Your task to perform on an android device: toggle javascript in the chrome app Image 0: 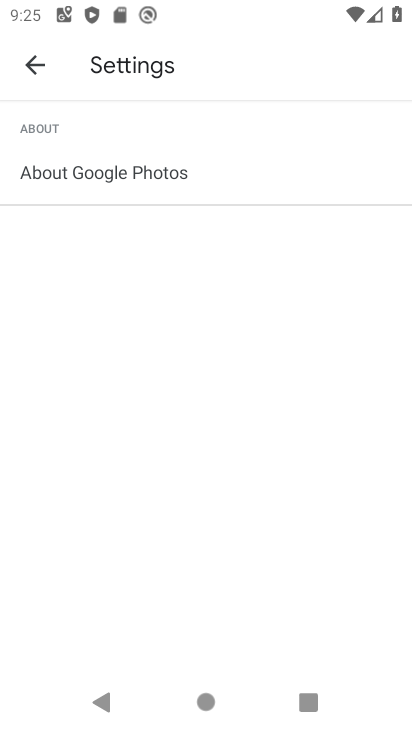
Step 0: press home button
Your task to perform on an android device: toggle javascript in the chrome app Image 1: 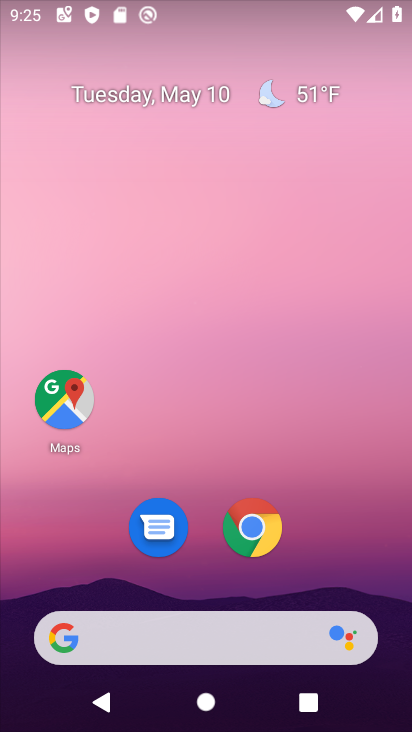
Step 1: click (252, 535)
Your task to perform on an android device: toggle javascript in the chrome app Image 2: 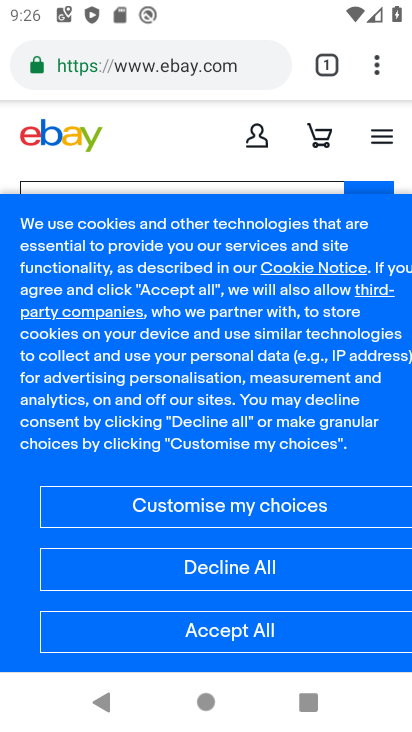
Step 2: click (377, 74)
Your task to perform on an android device: toggle javascript in the chrome app Image 3: 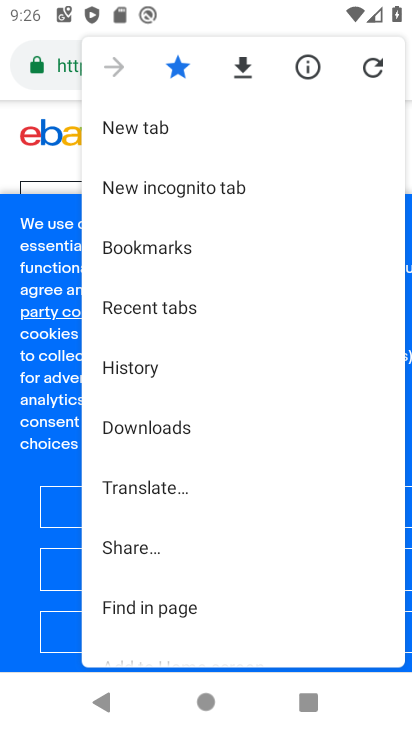
Step 3: drag from (200, 608) to (196, 282)
Your task to perform on an android device: toggle javascript in the chrome app Image 4: 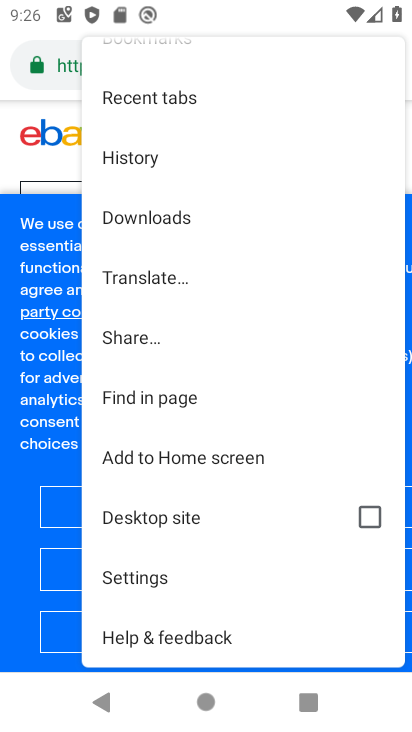
Step 4: click (131, 577)
Your task to perform on an android device: toggle javascript in the chrome app Image 5: 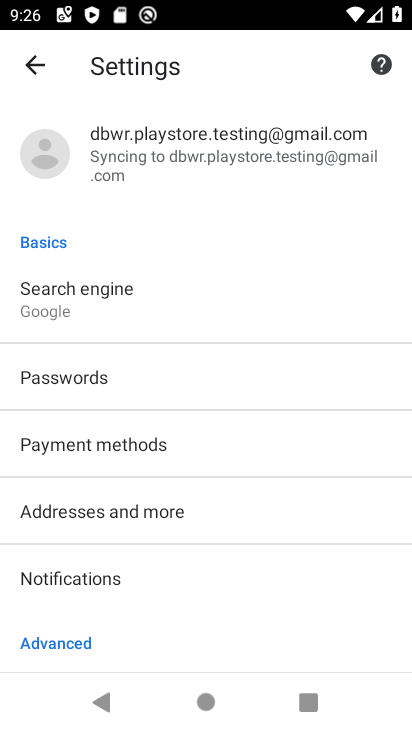
Step 5: drag from (173, 636) to (199, 256)
Your task to perform on an android device: toggle javascript in the chrome app Image 6: 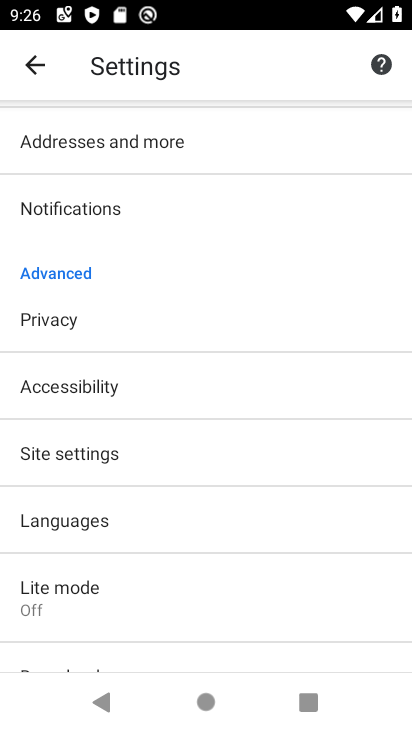
Step 6: click (88, 452)
Your task to perform on an android device: toggle javascript in the chrome app Image 7: 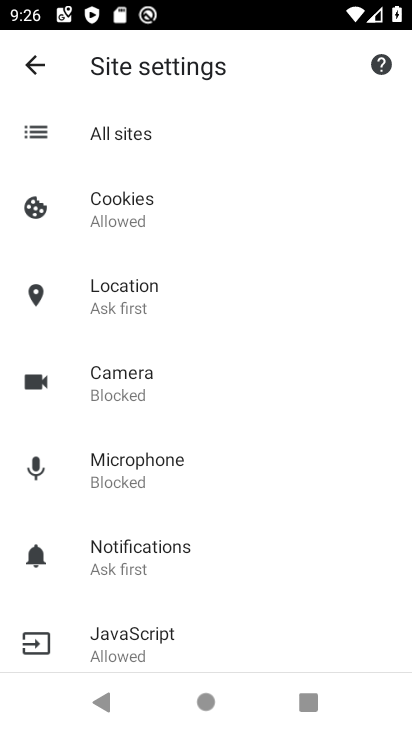
Step 7: click (125, 634)
Your task to perform on an android device: toggle javascript in the chrome app Image 8: 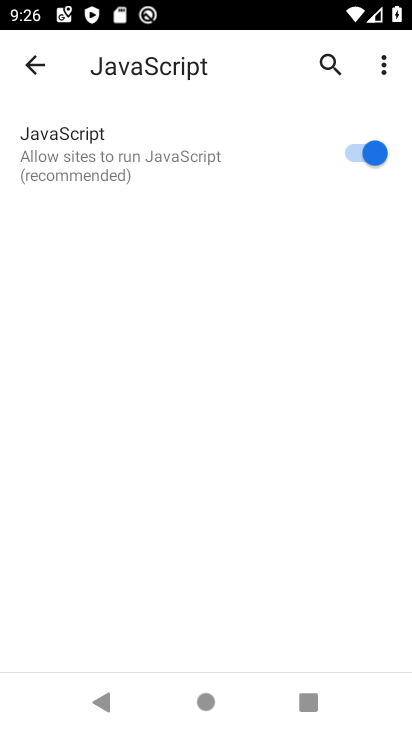
Step 8: click (359, 159)
Your task to perform on an android device: toggle javascript in the chrome app Image 9: 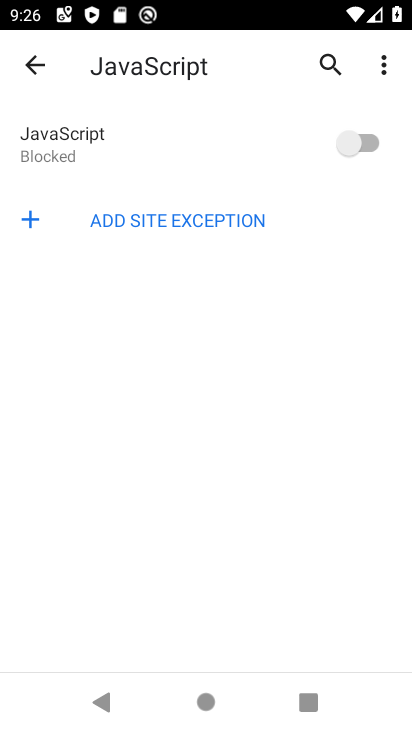
Step 9: task complete